Your task to perform on an android device: change timer sound Image 0: 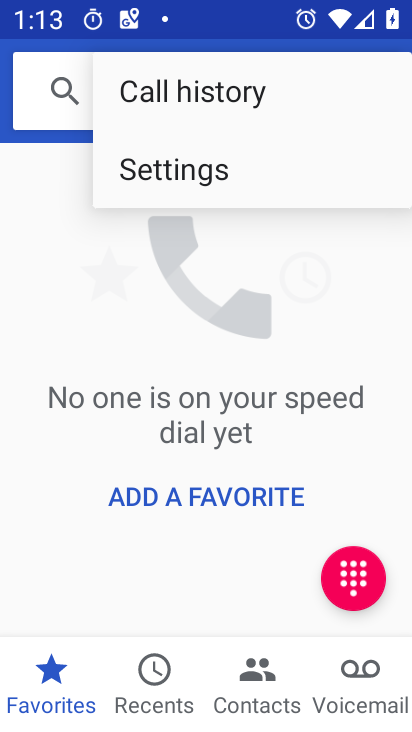
Step 0: press home button
Your task to perform on an android device: change timer sound Image 1: 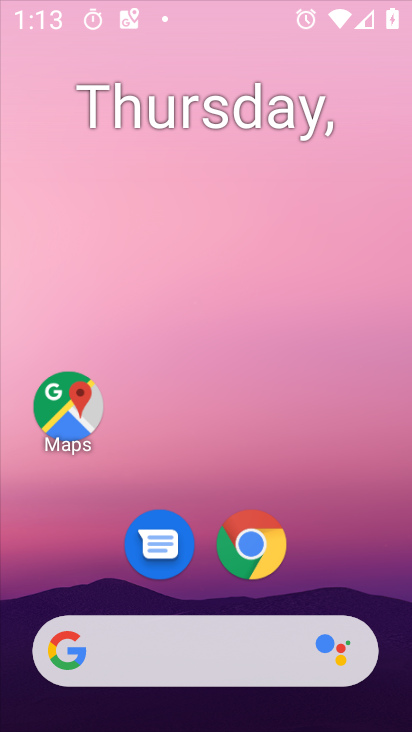
Step 1: drag from (63, 522) to (207, 257)
Your task to perform on an android device: change timer sound Image 2: 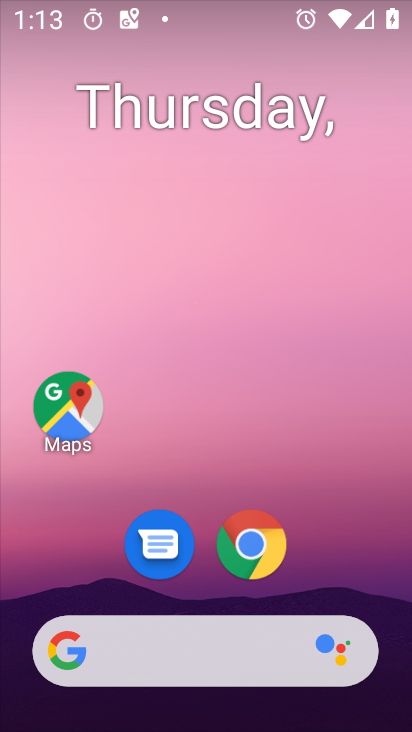
Step 2: drag from (43, 538) to (216, 132)
Your task to perform on an android device: change timer sound Image 3: 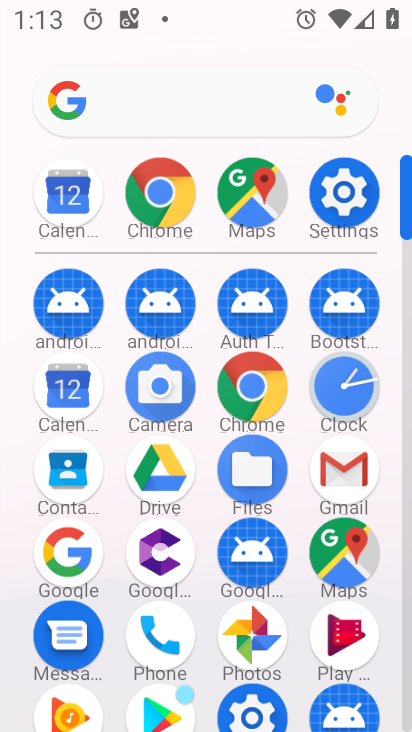
Step 3: click (323, 389)
Your task to perform on an android device: change timer sound Image 4: 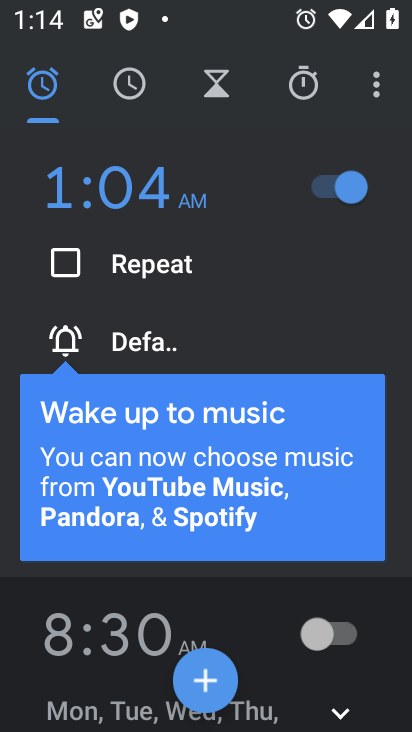
Step 4: click (368, 85)
Your task to perform on an android device: change timer sound Image 5: 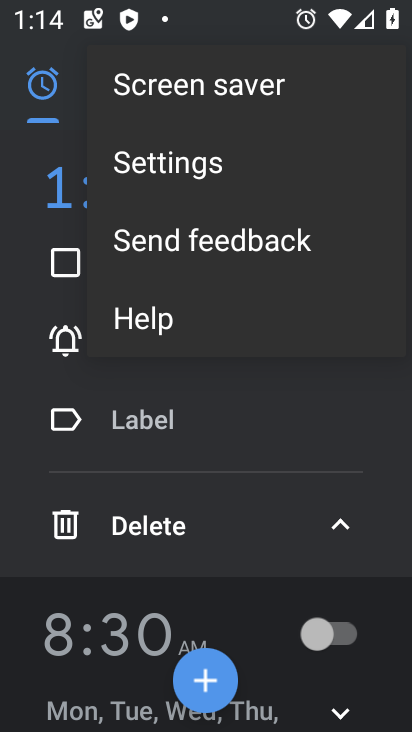
Step 5: click (243, 175)
Your task to perform on an android device: change timer sound Image 6: 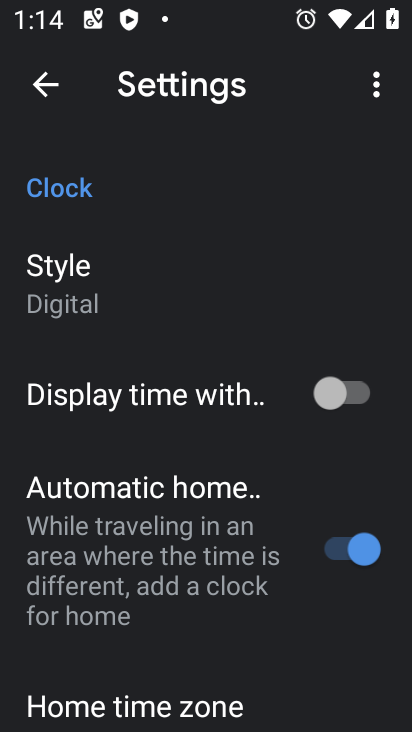
Step 6: drag from (33, 587) to (238, 187)
Your task to perform on an android device: change timer sound Image 7: 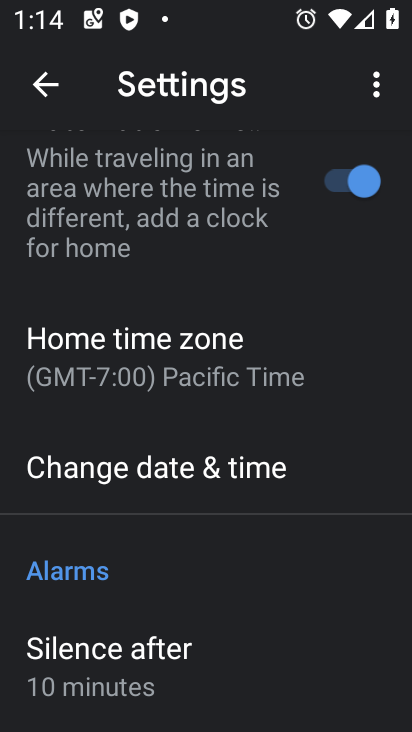
Step 7: drag from (102, 656) to (294, 213)
Your task to perform on an android device: change timer sound Image 8: 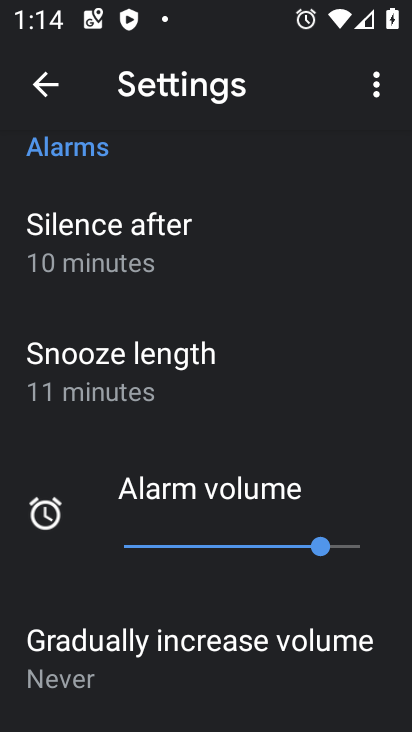
Step 8: drag from (120, 175) to (78, 723)
Your task to perform on an android device: change timer sound Image 9: 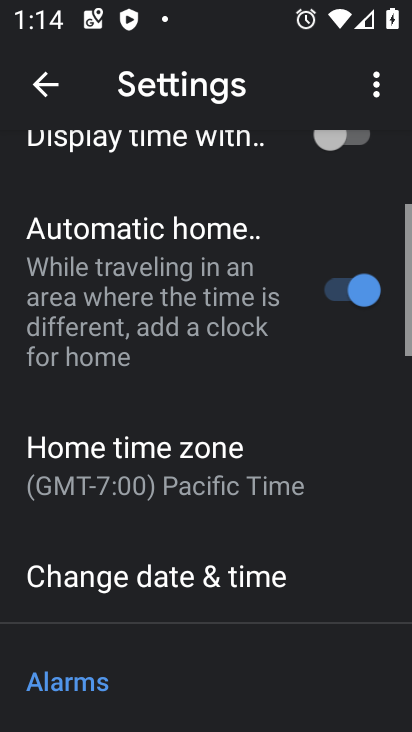
Step 9: drag from (200, 426) to (158, 713)
Your task to perform on an android device: change timer sound Image 10: 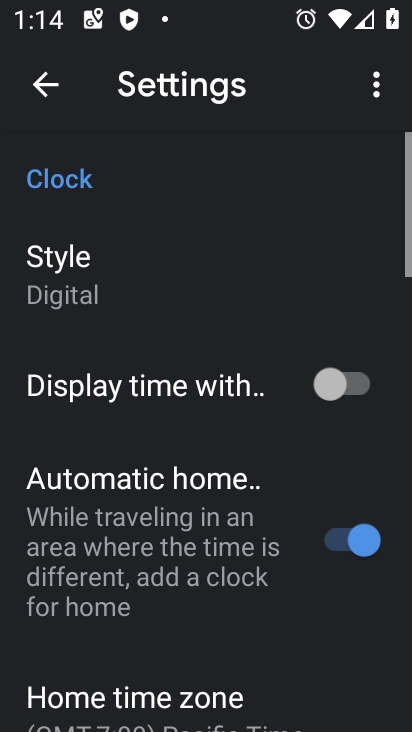
Step 10: drag from (117, 306) to (107, 627)
Your task to perform on an android device: change timer sound Image 11: 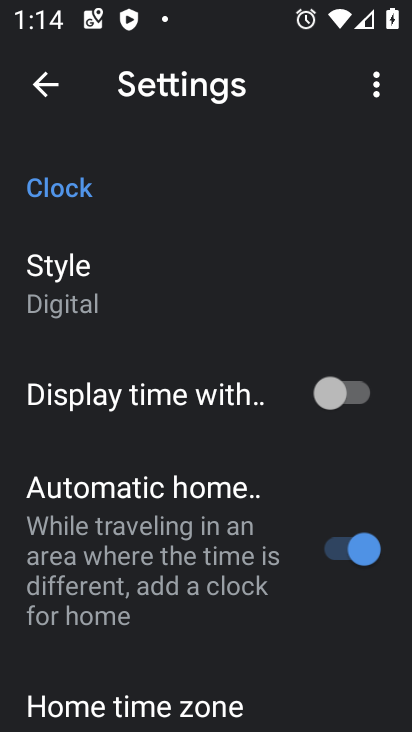
Step 11: drag from (87, 617) to (259, 203)
Your task to perform on an android device: change timer sound Image 12: 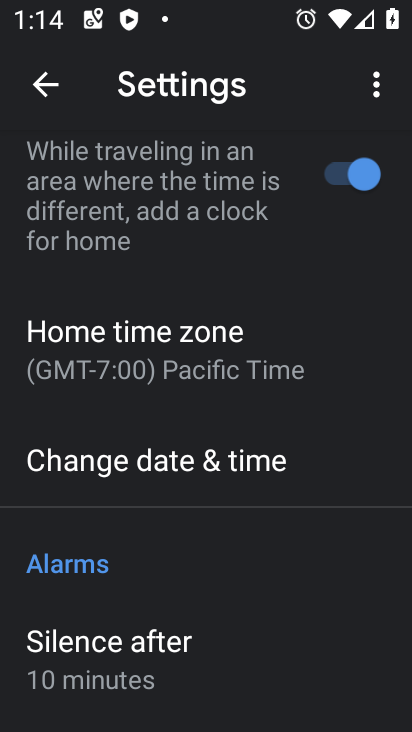
Step 12: drag from (74, 695) to (257, 192)
Your task to perform on an android device: change timer sound Image 13: 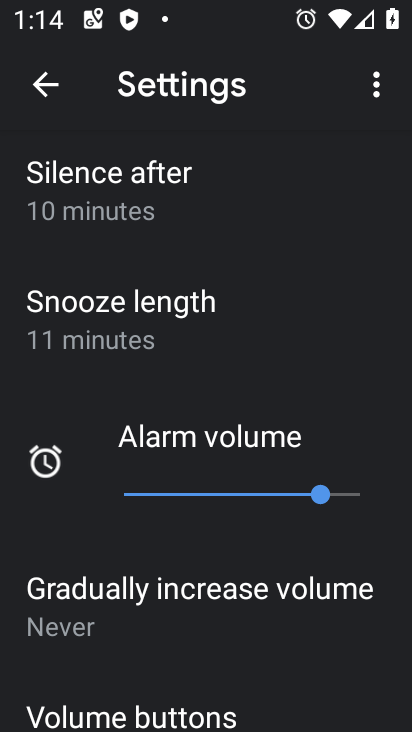
Step 13: drag from (77, 687) to (269, 185)
Your task to perform on an android device: change timer sound Image 14: 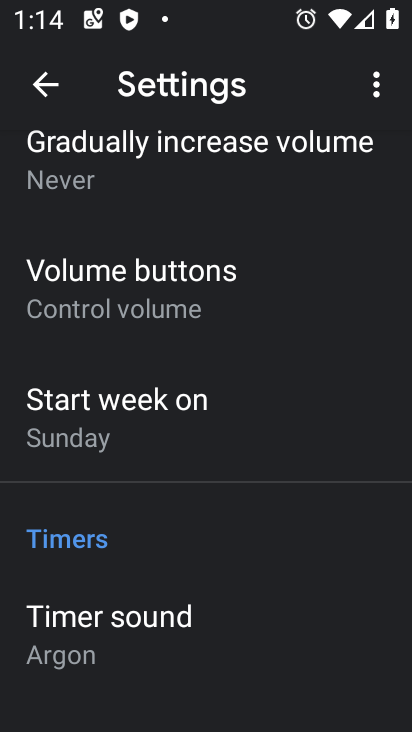
Step 14: click (95, 647)
Your task to perform on an android device: change timer sound Image 15: 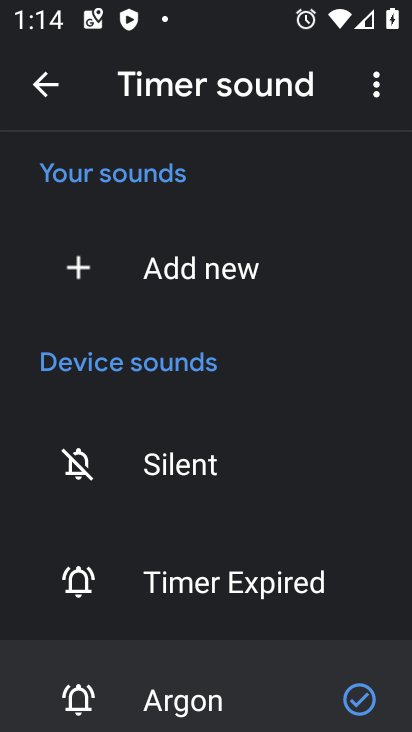
Step 15: click (163, 583)
Your task to perform on an android device: change timer sound Image 16: 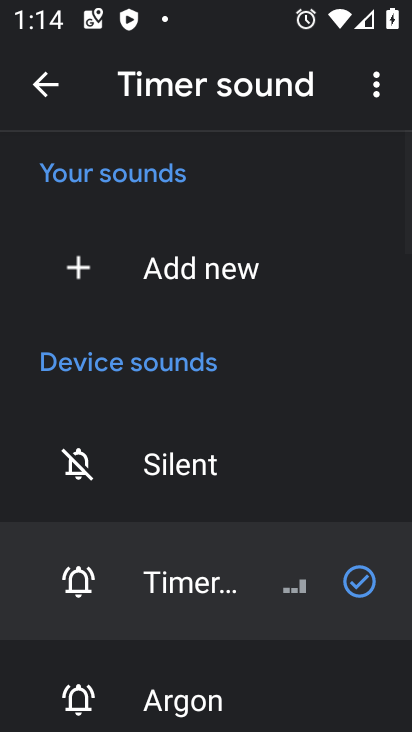
Step 16: task complete